Your task to perform on an android device: Open Chrome and go to settings Image 0: 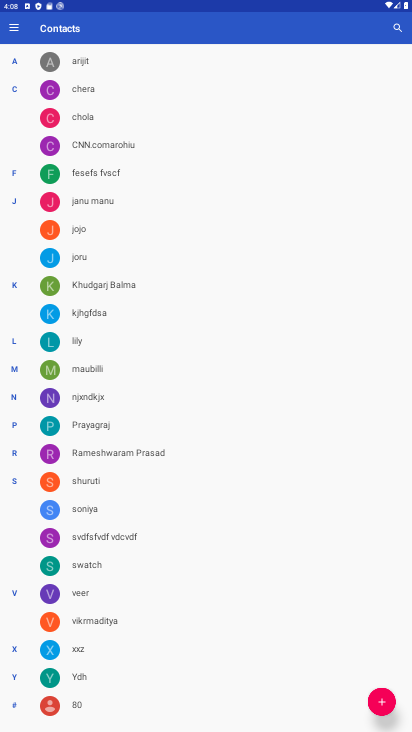
Step 0: press home button
Your task to perform on an android device: Open Chrome and go to settings Image 1: 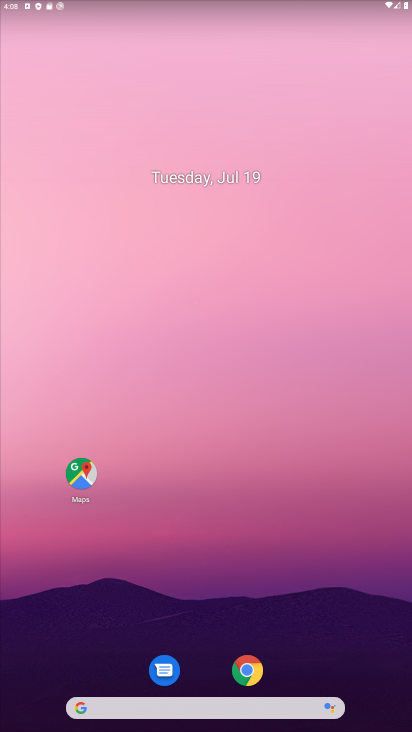
Step 1: drag from (222, 710) to (223, 250)
Your task to perform on an android device: Open Chrome and go to settings Image 2: 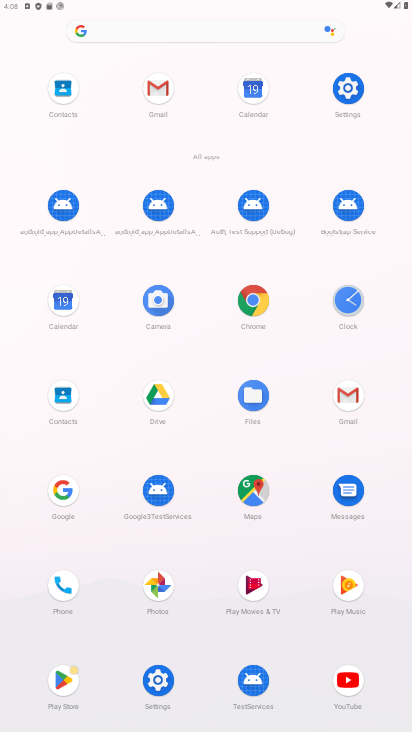
Step 2: click (250, 307)
Your task to perform on an android device: Open Chrome and go to settings Image 3: 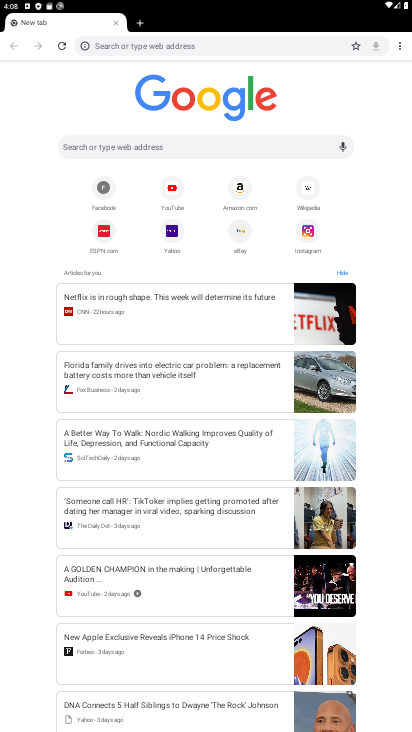
Step 3: task complete